Your task to perform on an android device: check the backup settings in the google photos Image 0: 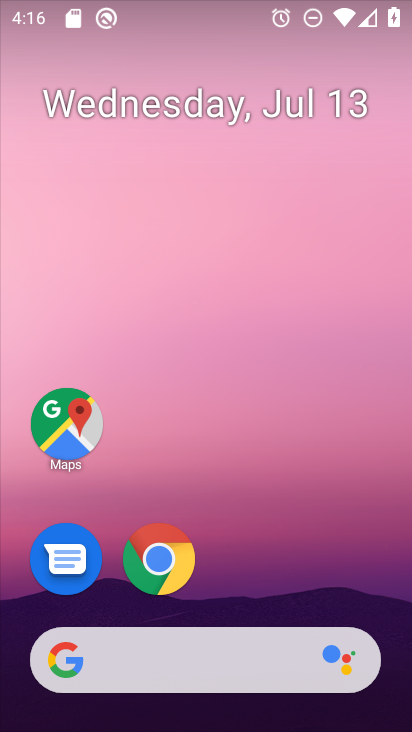
Step 0: drag from (362, 586) to (362, 226)
Your task to perform on an android device: check the backup settings in the google photos Image 1: 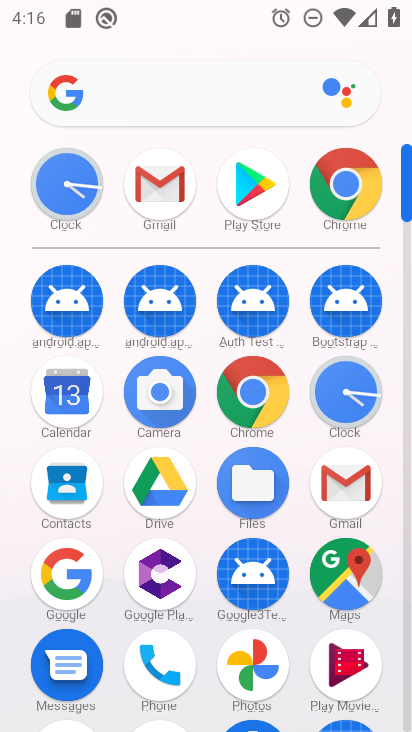
Step 1: drag from (292, 629) to (297, 430)
Your task to perform on an android device: check the backup settings in the google photos Image 2: 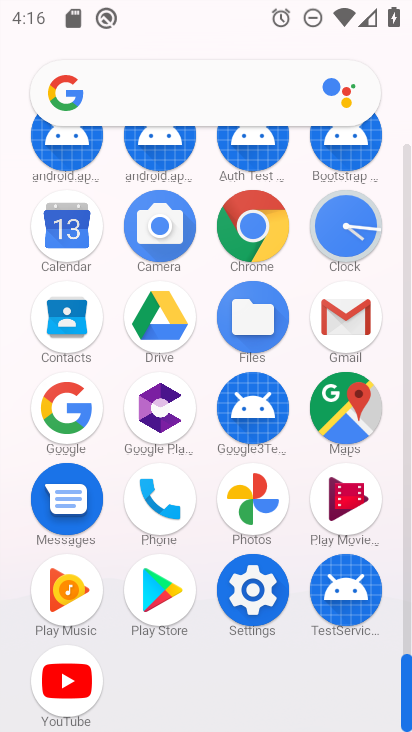
Step 2: click (270, 500)
Your task to perform on an android device: check the backup settings in the google photos Image 3: 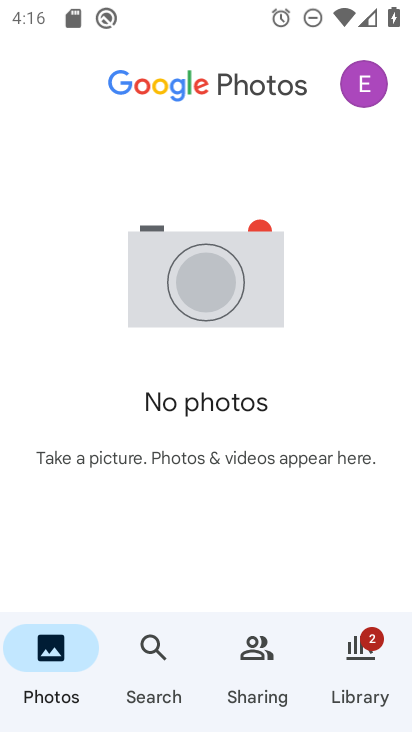
Step 3: click (361, 86)
Your task to perform on an android device: check the backup settings in the google photos Image 4: 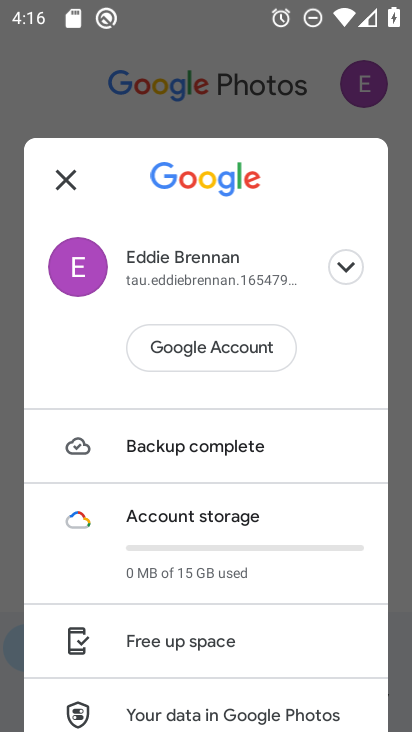
Step 4: drag from (326, 451) to (331, 251)
Your task to perform on an android device: check the backup settings in the google photos Image 5: 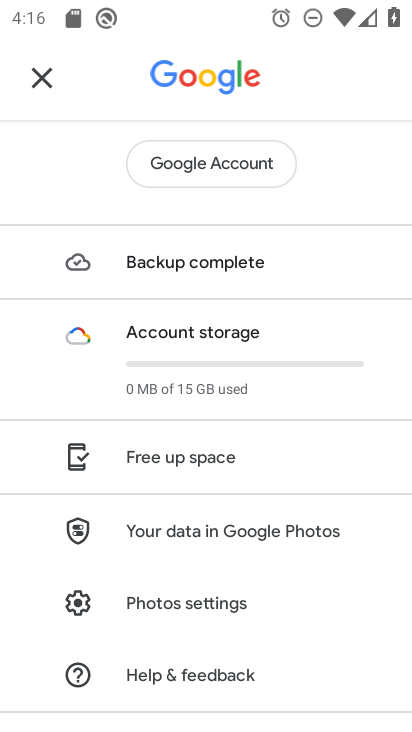
Step 5: click (240, 603)
Your task to perform on an android device: check the backup settings in the google photos Image 6: 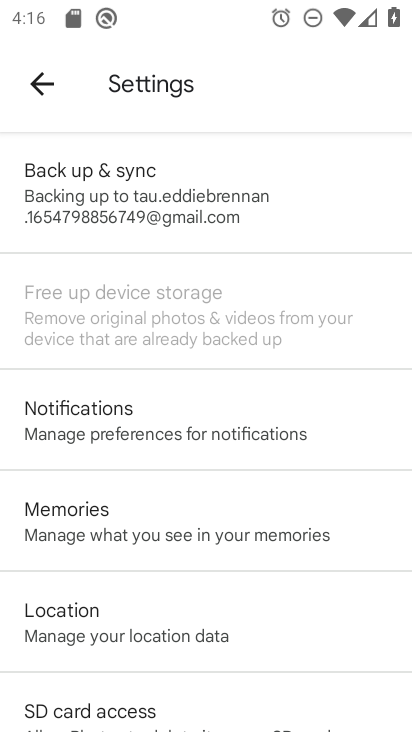
Step 6: click (283, 205)
Your task to perform on an android device: check the backup settings in the google photos Image 7: 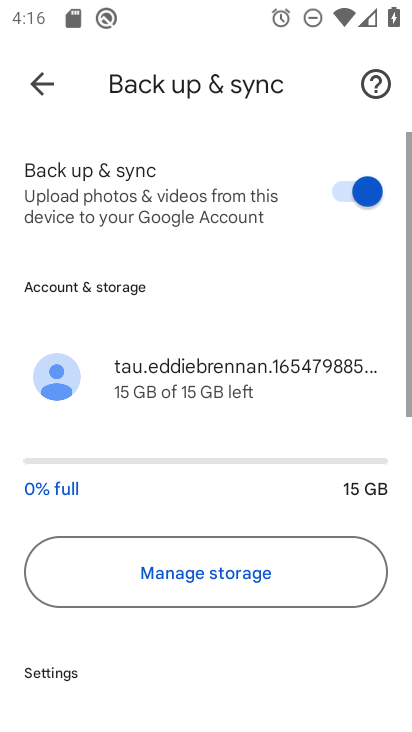
Step 7: task complete